Your task to perform on an android device: When is my next meeting? Image 0: 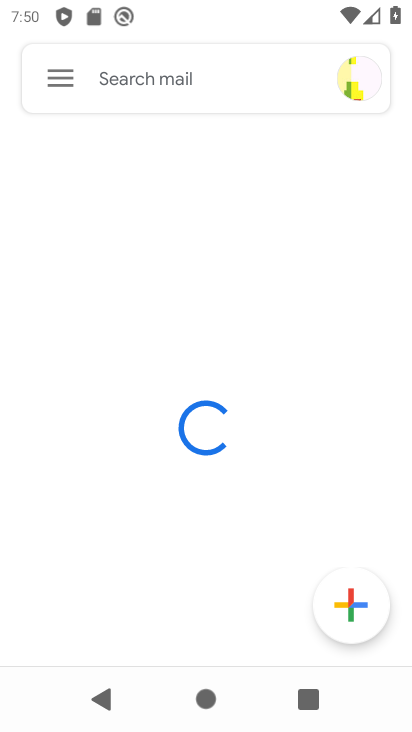
Step 0: press home button
Your task to perform on an android device: When is my next meeting? Image 1: 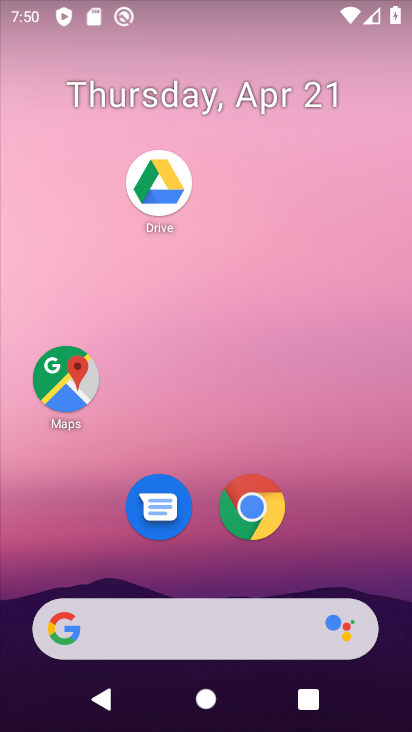
Step 1: drag from (361, 522) to (357, 90)
Your task to perform on an android device: When is my next meeting? Image 2: 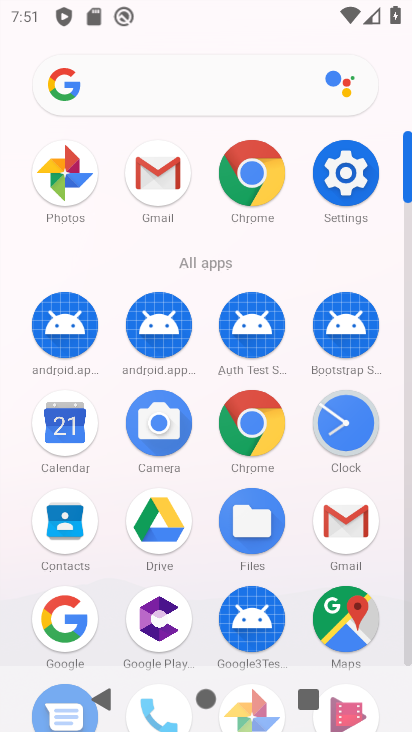
Step 2: click (79, 446)
Your task to perform on an android device: When is my next meeting? Image 3: 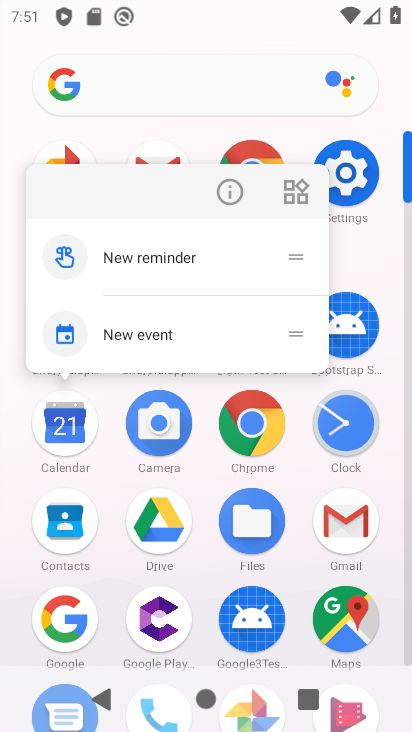
Step 3: click (78, 445)
Your task to perform on an android device: When is my next meeting? Image 4: 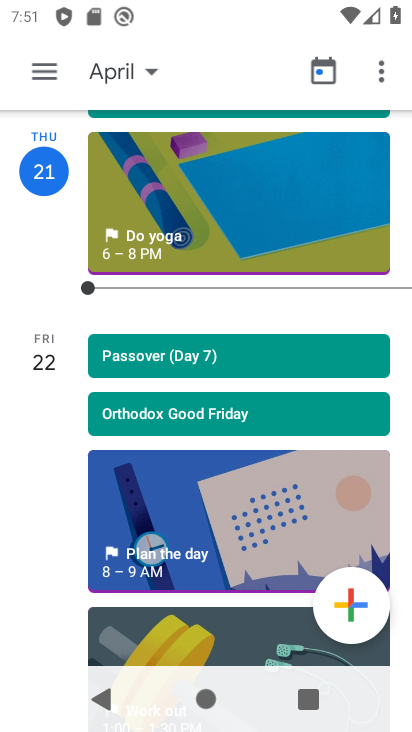
Step 4: click (193, 523)
Your task to perform on an android device: When is my next meeting? Image 5: 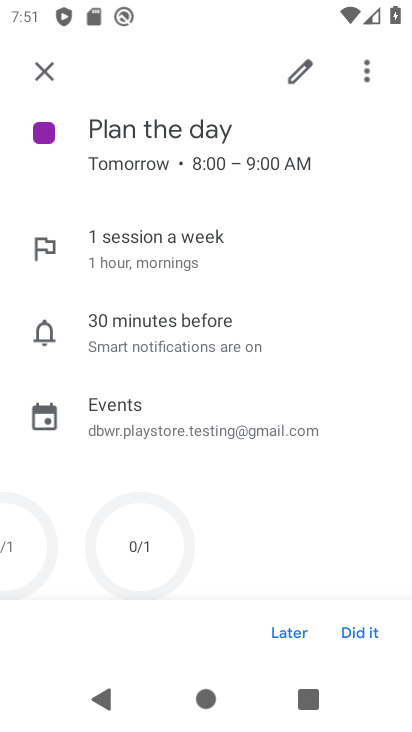
Step 5: task complete